Your task to perform on an android device: turn off location history Image 0: 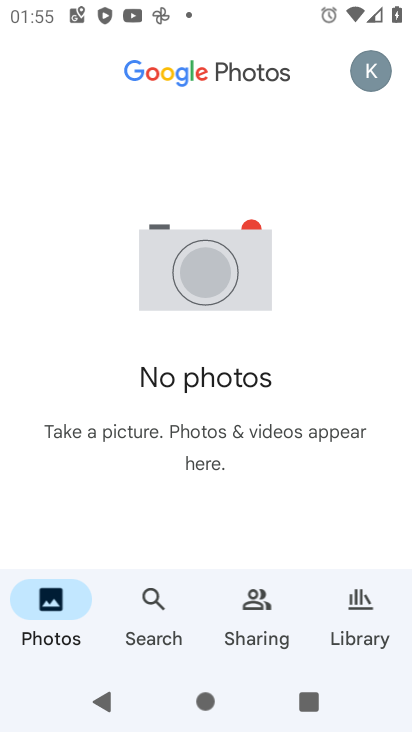
Step 0: press home button
Your task to perform on an android device: turn off location history Image 1: 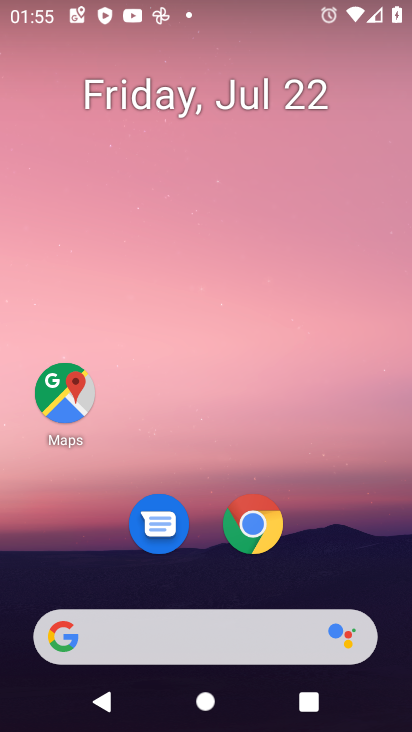
Step 1: click (68, 393)
Your task to perform on an android device: turn off location history Image 2: 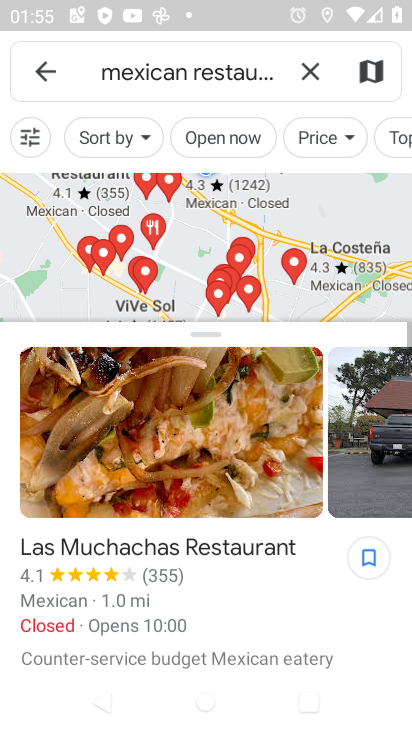
Step 2: click (40, 68)
Your task to perform on an android device: turn off location history Image 3: 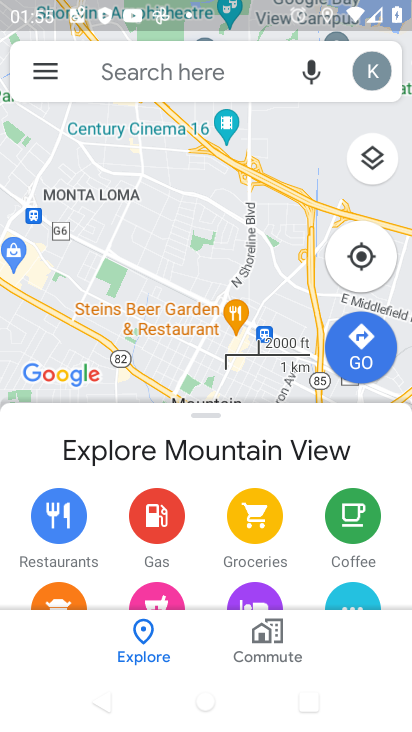
Step 3: click (46, 74)
Your task to perform on an android device: turn off location history Image 4: 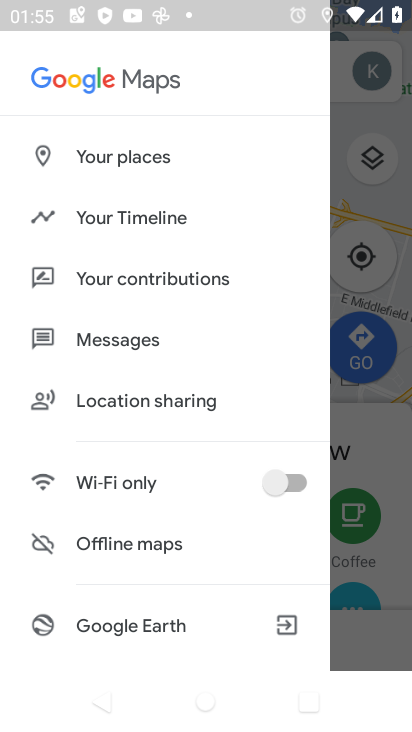
Step 4: click (169, 221)
Your task to perform on an android device: turn off location history Image 5: 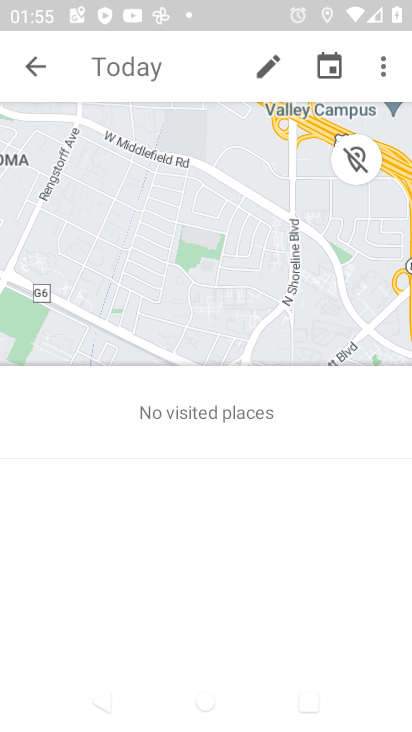
Step 5: click (382, 66)
Your task to perform on an android device: turn off location history Image 6: 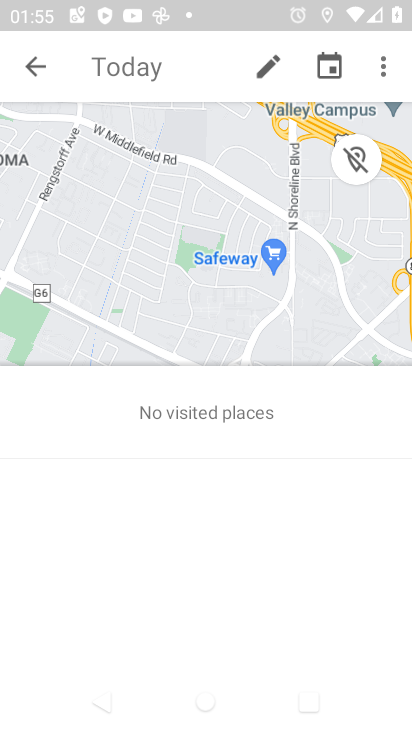
Step 6: click (384, 68)
Your task to perform on an android device: turn off location history Image 7: 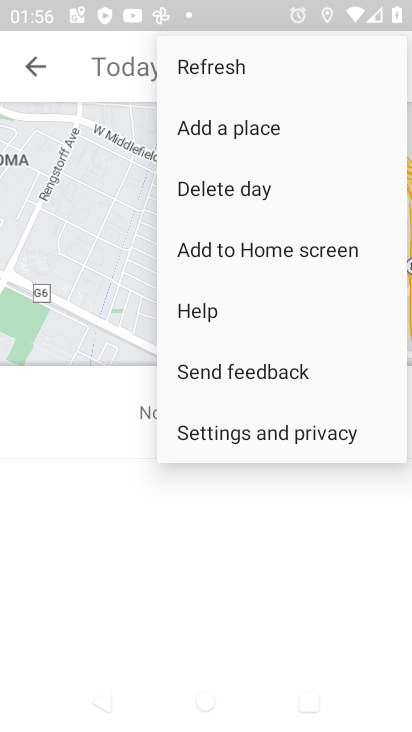
Step 7: click (280, 434)
Your task to perform on an android device: turn off location history Image 8: 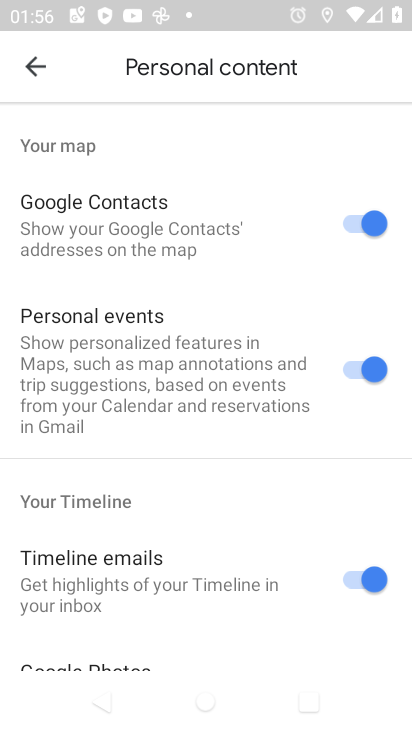
Step 8: drag from (153, 612) to (221, 140)
Your task to perform on an android device: turn off location history Image 9: 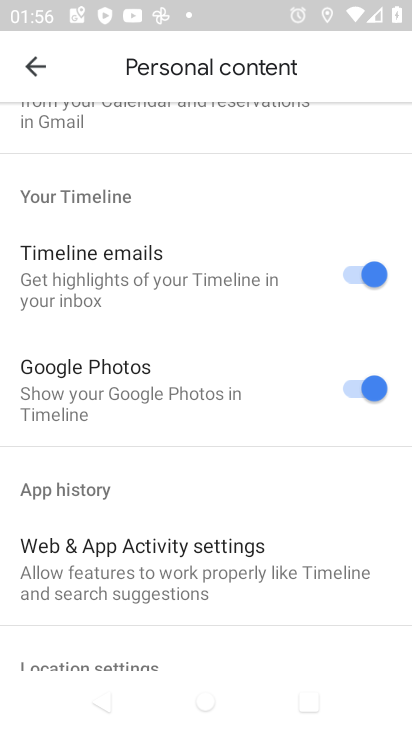
Step 9: drag from (184, 598) to (310, 199)
Your task to perform on an android device: turn off location history Image 10: 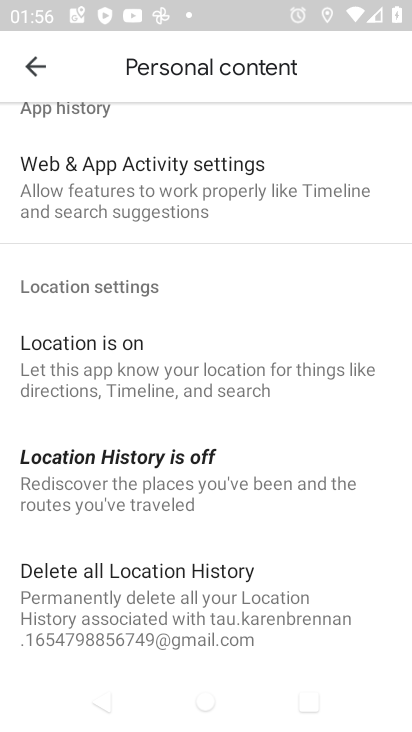
Step 10: click (181, 465)
Your task to perform on an android device: turn off location history Image 11: 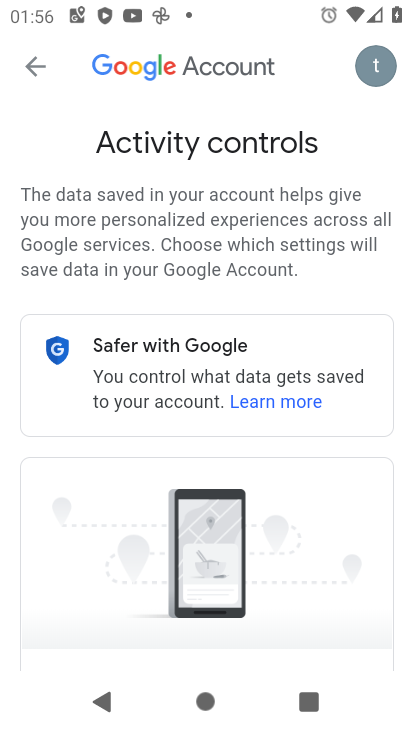
Step 11: task complete